Your task to perform on an android device: change text size in settings app Image 0: 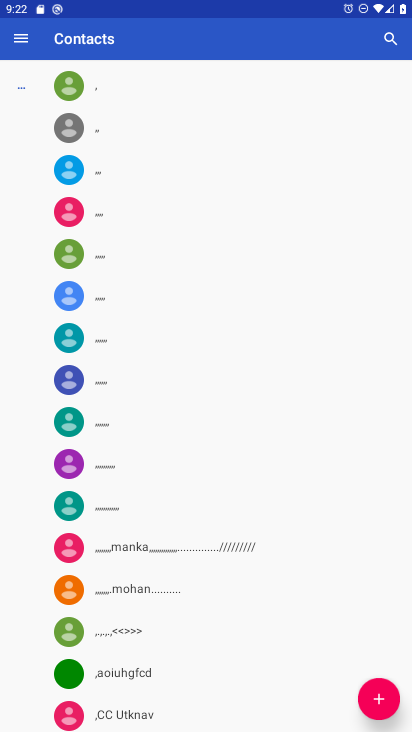
Step 0: press home button
Your task to perform on an android device: change text size in settings app Image 1: 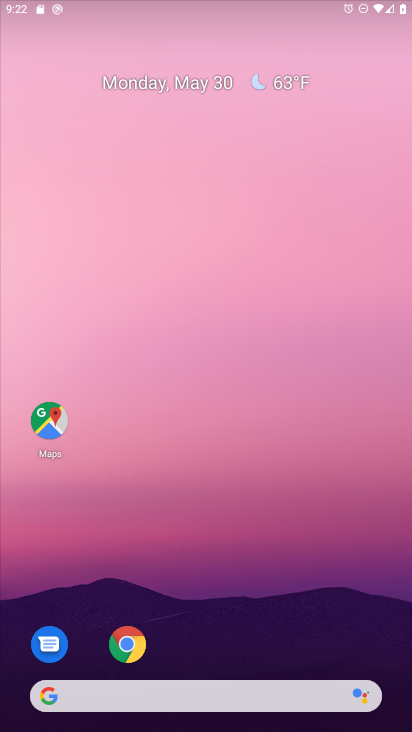
Step 1: drag from (185, 634) to (231, 38)
Your task to perform on an android device: change text size in settings app Image 2: 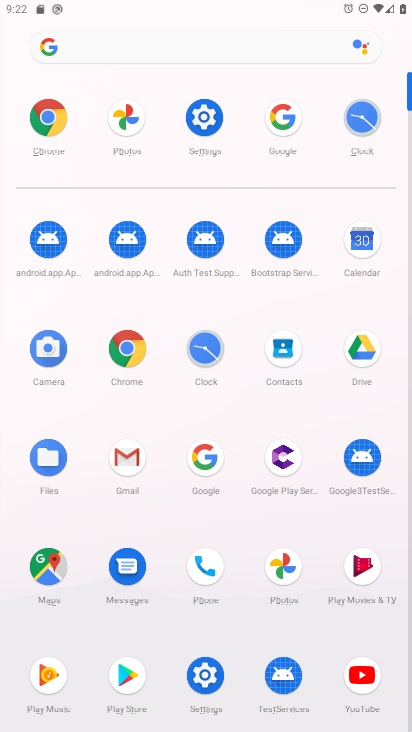
Step 2: click (207, 105)
Your task to perform on an android device: change text size in settings app Image 3: 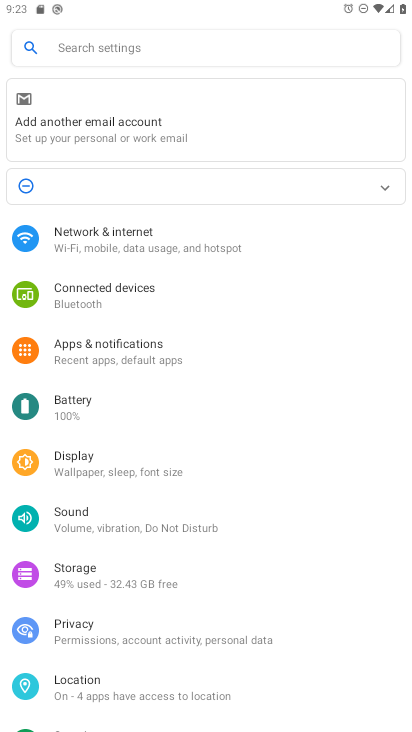
Step 3: click (120, 465)
Your task to perform on an android device: change text size in settings app Image 4: 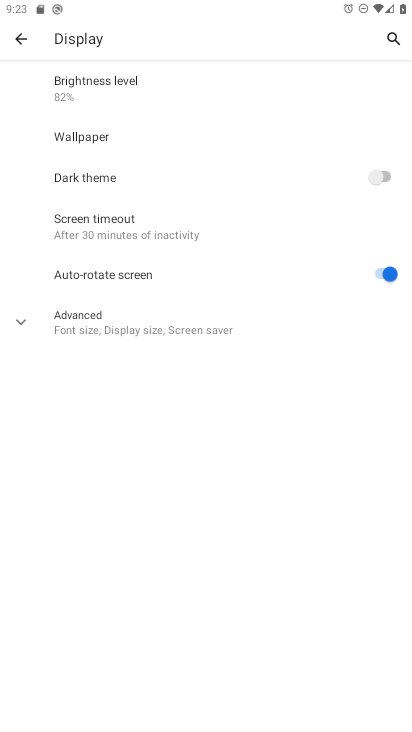
Step 4: click (114, 329)
Your task to perform on an android device: change text size in settings app Image 5: 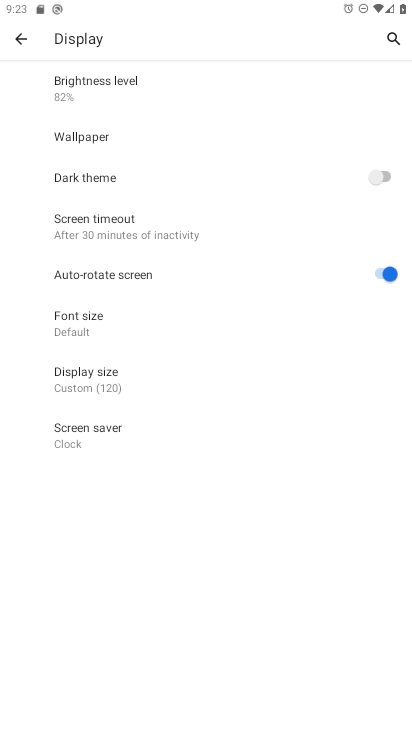
Step 5: click (100, 322)
Your task to perform on an android device: change text size in settings app Image 6: 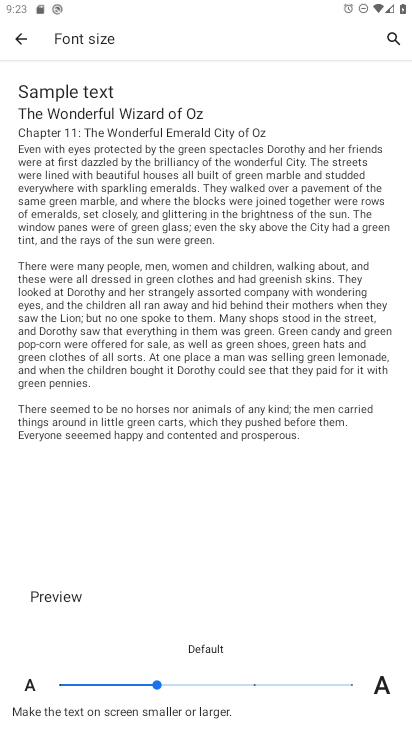
Step 6: task complete